Your task to perform on an android device: check battery use Image 0: 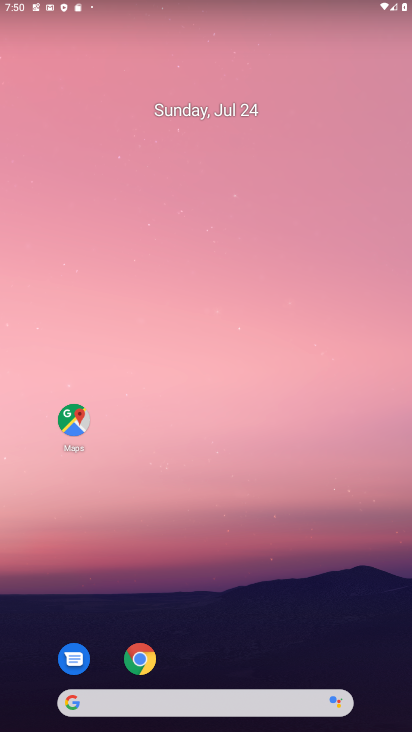
Step 0: drag from (270, 667) to (272, 3)
Your task to perform on an android device: check battery use Image 1: 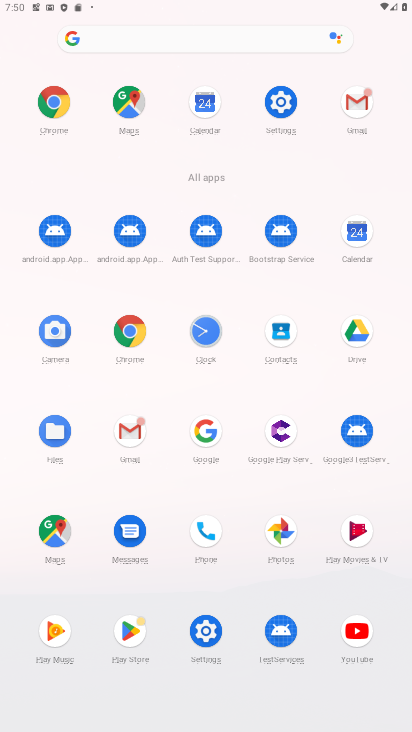
Step 1: click (279, 104)
Your task to perform on an android device: check battery use Image 2: 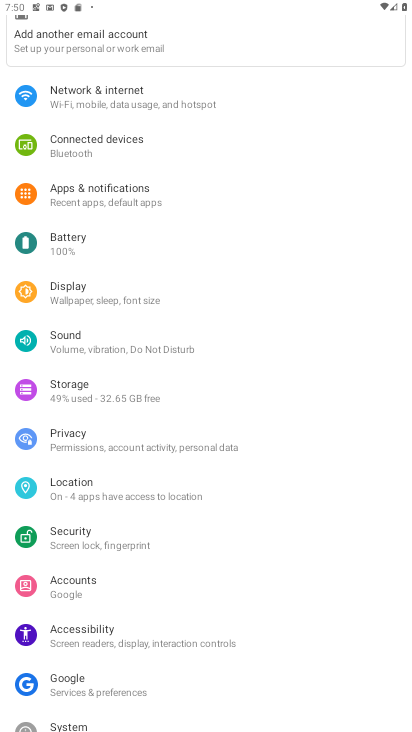
Step 2: click (70, 243)
Your task to perform on an android device: check battery use Image 3: 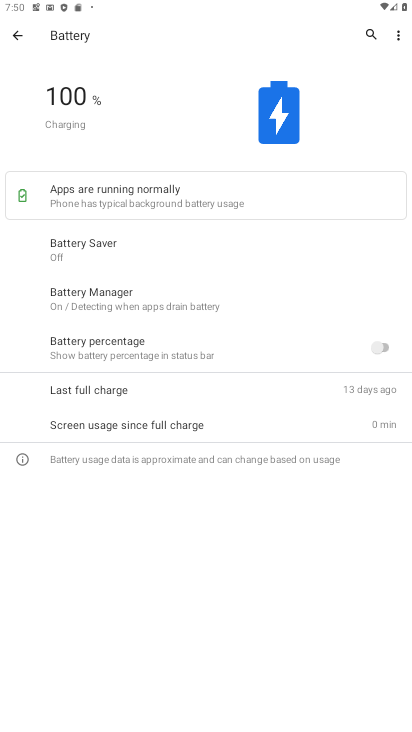
Step 3: click (396, 35)
Your task to perform on an android device: check battery use Image 4: 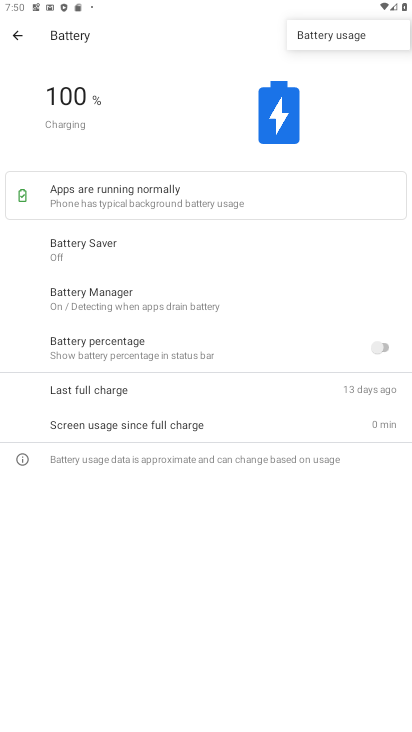
Step 4: click (332, 38)
Your task to perform on an android device: check battery use Image 5: 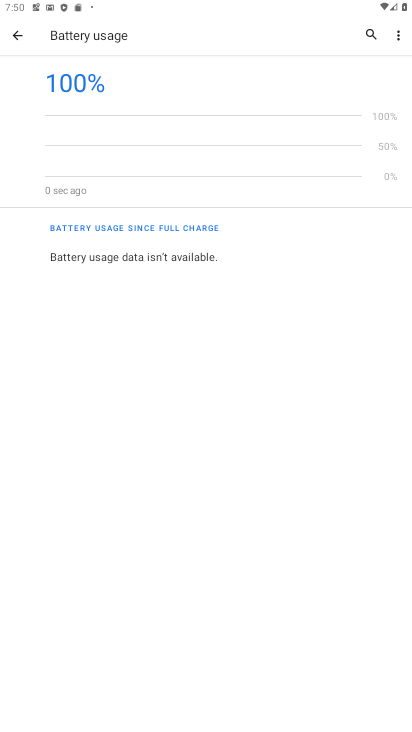
Step 5: task complete